Your task to perform on an android device: move a message to another label in the gmail app Image 0: 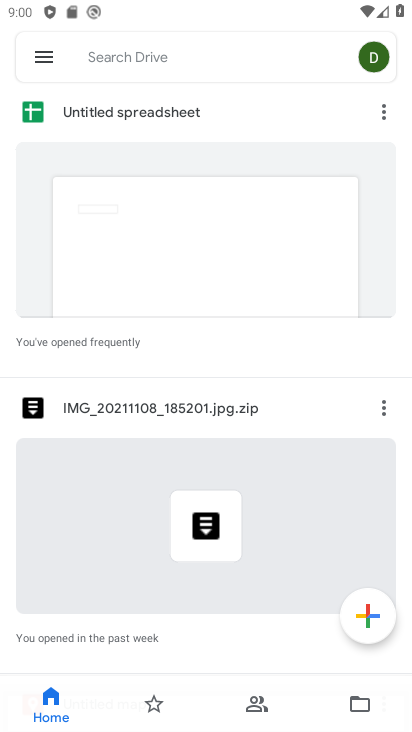
Step 0: press home button
Your task to perform on an android device: move a message to another label in the gmail app Image 1: 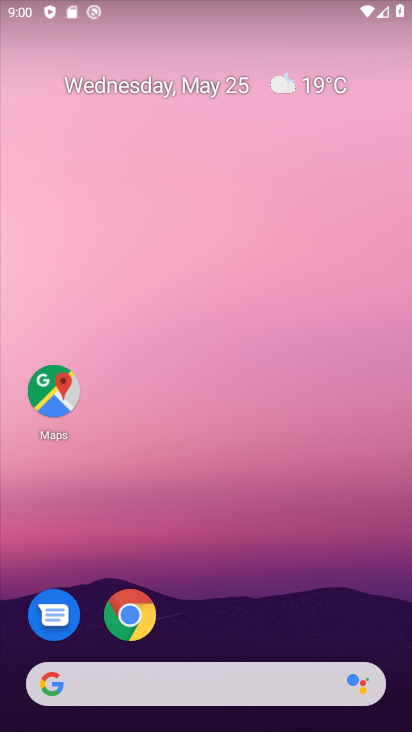
Step 1: drag from (243, 710) to (278, 237)
Your task to perform on an android device: move a message to another label in the gmail app Image 2: 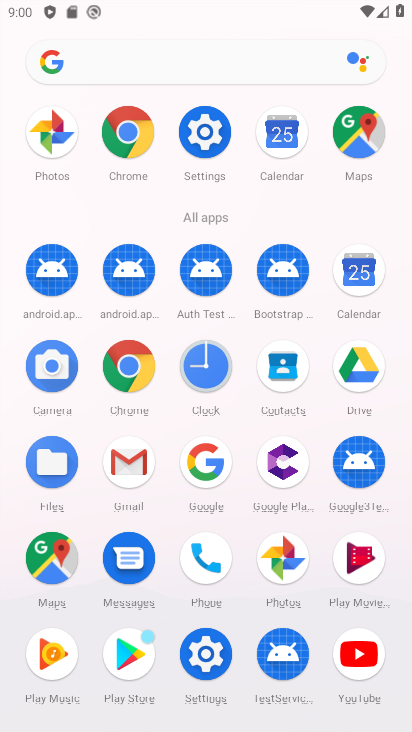
Step 2: click (126, 444)
Your task to perform on an android device: move a message to another label in the gmail app Image 3: 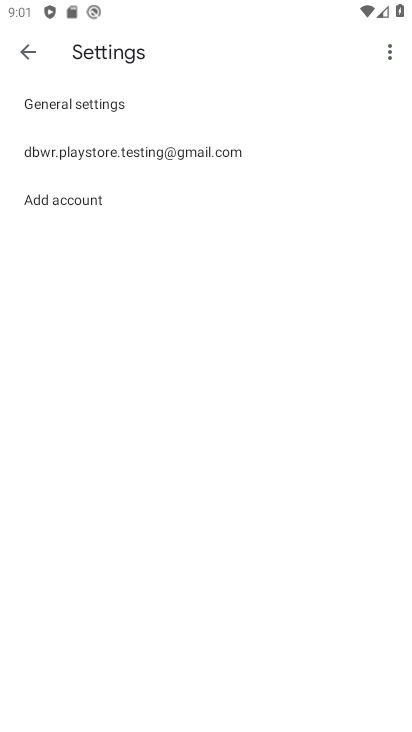
Step 3: click (18, 51)
Your task to perform on an android device: move a message to another label in the gmail app Image 4: 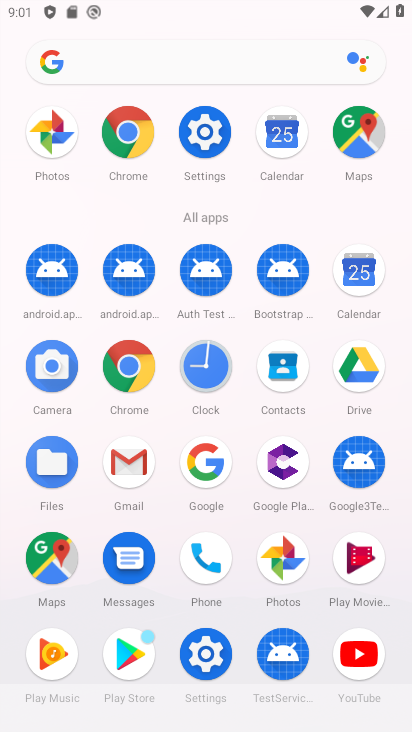
Step 4: click (130, 457)
Your task to perform on an android device: move a message to another label in the gmail app Image 5: 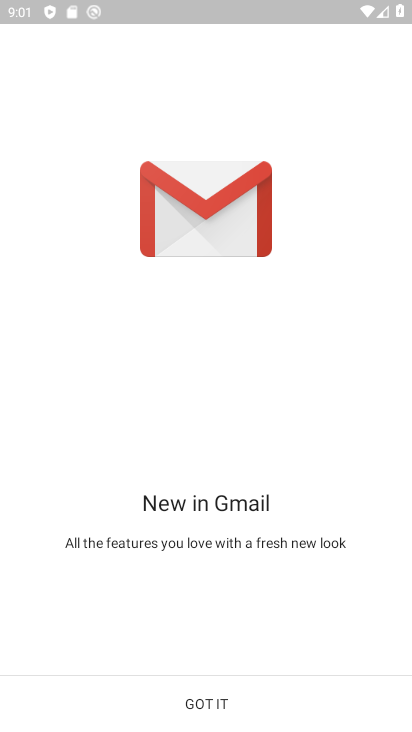
Step 5: click (209, 701)
Your task to perform on an android device: move a message to another label in the gmail app Image 6: 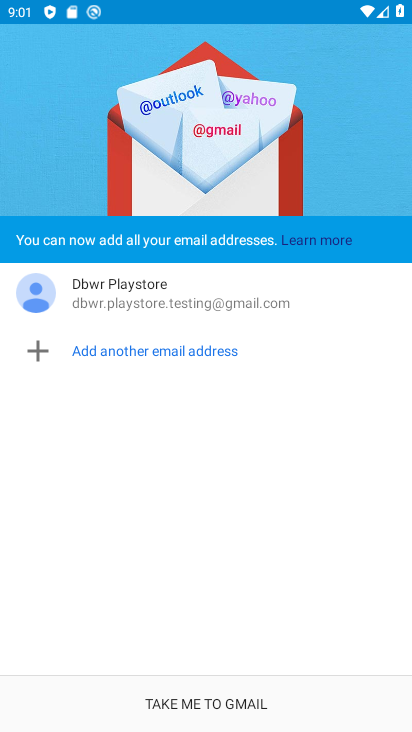
Step 6: click (198, 699)
Your task to perform on an android device: move a message to another label in the gmail app Image 7: 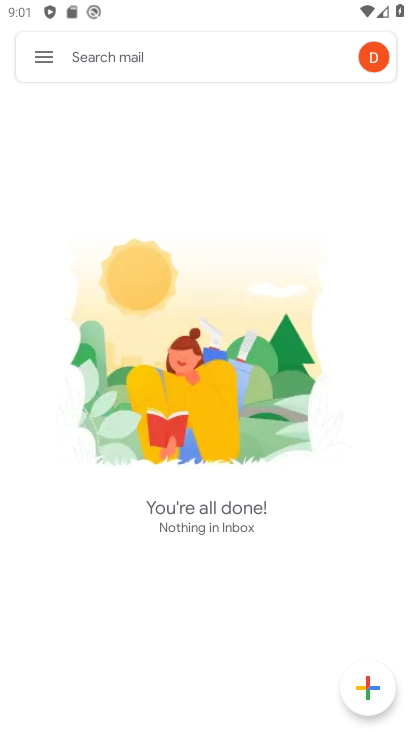
Step 7: click (36, 65)
Your task to perform on an android device: move a message to another label in the gmail app Image 8: 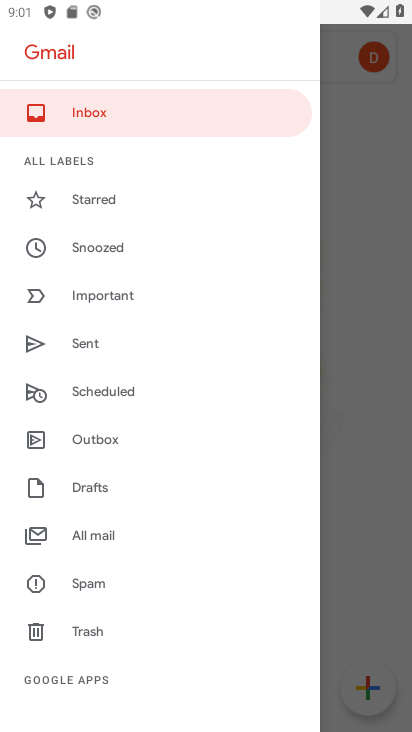
Step 8: drag from (115, 546) to (167, 360)
Your task to perform on an android device: move a message to another label in the gmail app Image 9: 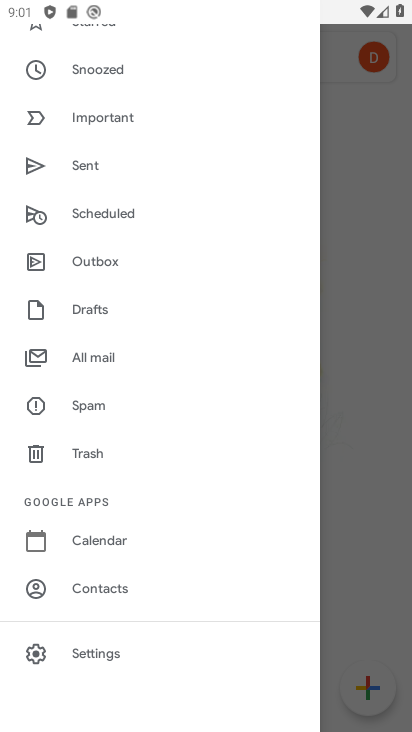
Step 9: click (90, 658)
Your task to perform on an android device: move a message to another label in the gmail app Image 10: 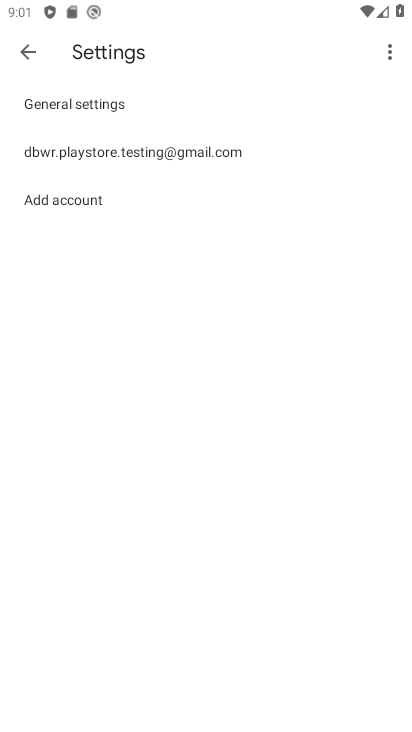
Step 10: click (132, 158)
Your task to perform on an android device: move a message to another label in the gmail app Image 11: 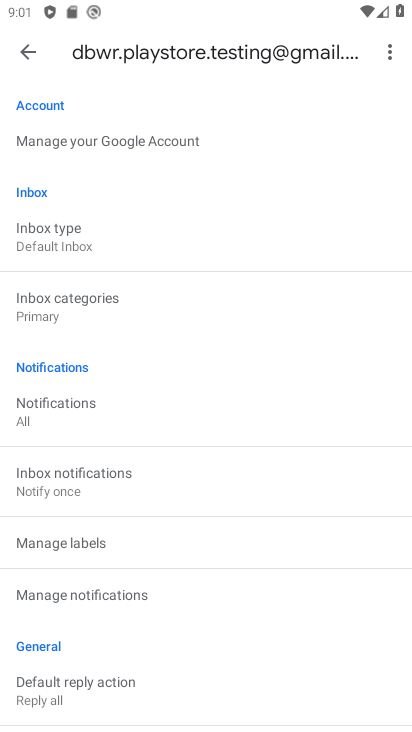
Step 11: click (87, 547)
Your task to perform on an android device: move a message to another label in the gmail app Image 12: 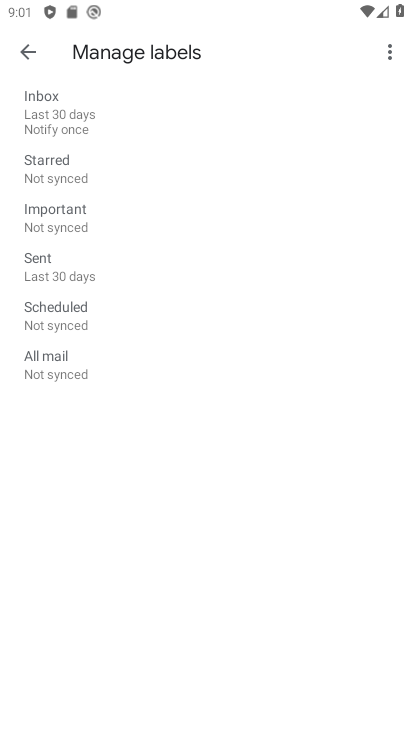
Step 12: click (100, 204)
Your task to perform on an android device: move a message to another label in the gmail app Image 13: 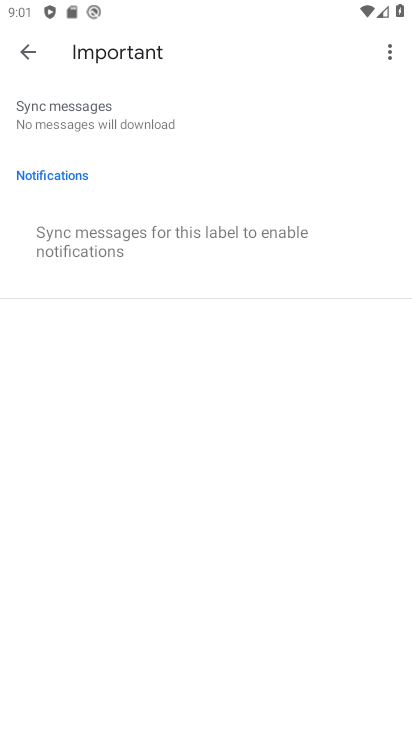
Step 13: task complete